Your task to perform on an android device: toggle priority inbox in the gmail app Image 0: 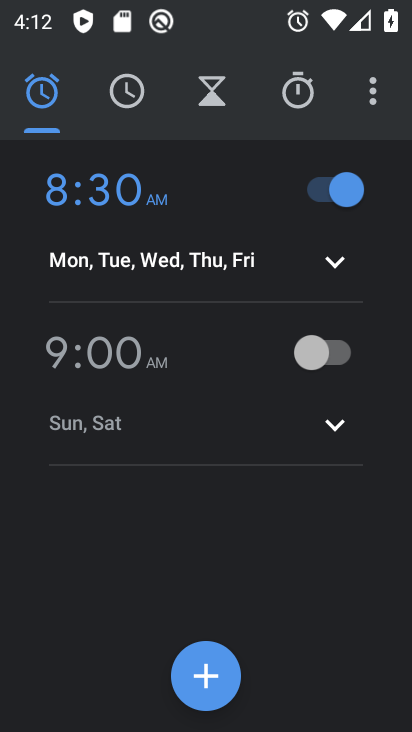
Step 0: press back button
Your task to perform on an android device: toggle priority inbox in the gmail app Image 1: 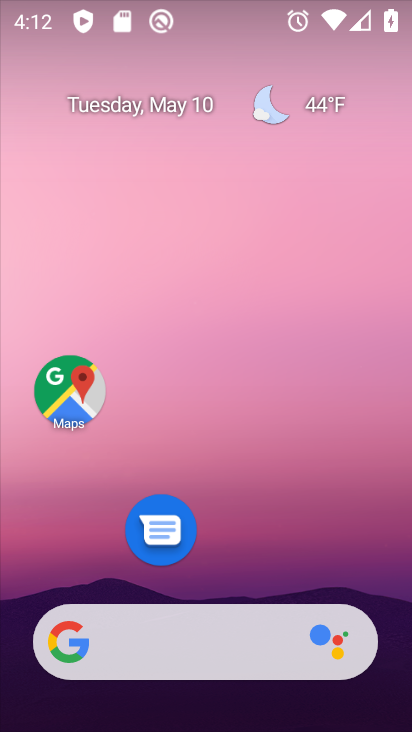
Step 1: drag from (231, 580) to (313, 77)
Your task to perform on an android device: toggle priority inbox in the gmail app Image 2: 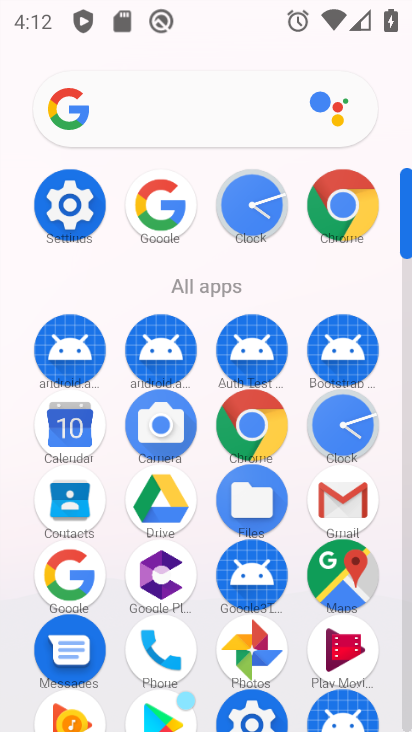
Step 2: click (351, 508)
Your task to perform on an android device: toggle priority inbox in the gmail app Image 3: 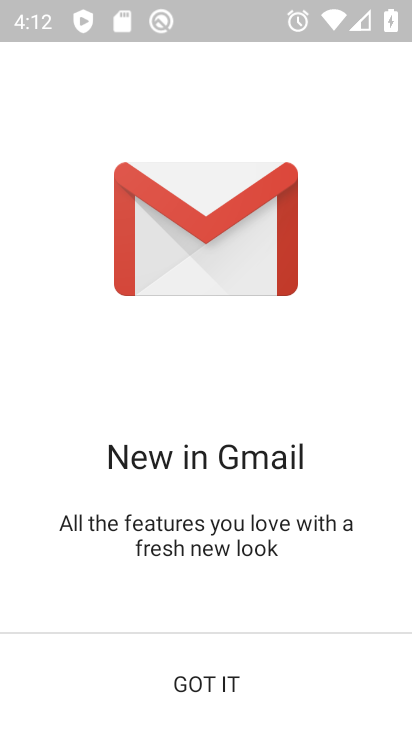
Step 3: click (190, 679)
Your task to perform on an android device: toggle priority inbox in the gmail app Image 4: 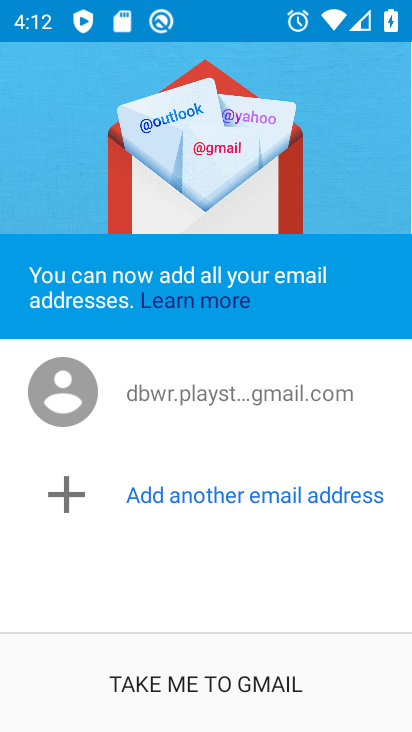
Step 4: click (202, 685)
Your task to perform on an android device: toggle priority inbox in the gmail app Image 5: 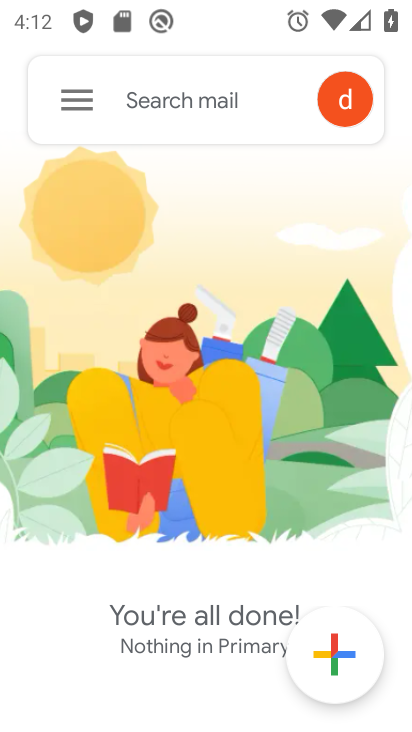
Step 5: click (71, 101)
Your task to perform on an android device: toggle priority inbox in the gmail app Image 6: 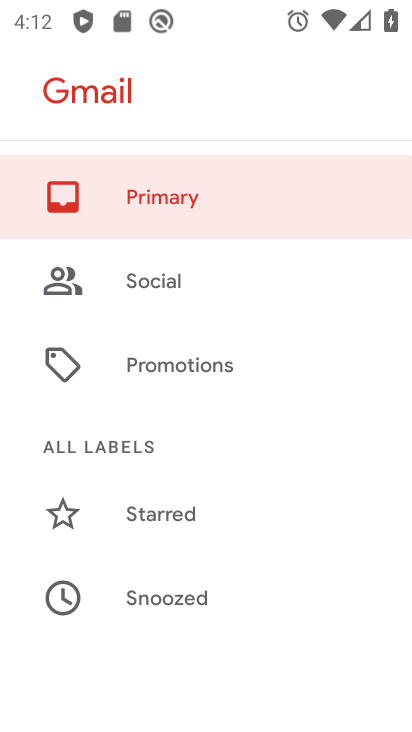
Step 6: drag from (179, 586) to (321, 57)
Your task to perform on an android device: toggle priority inbox in the gmail app Image 7: 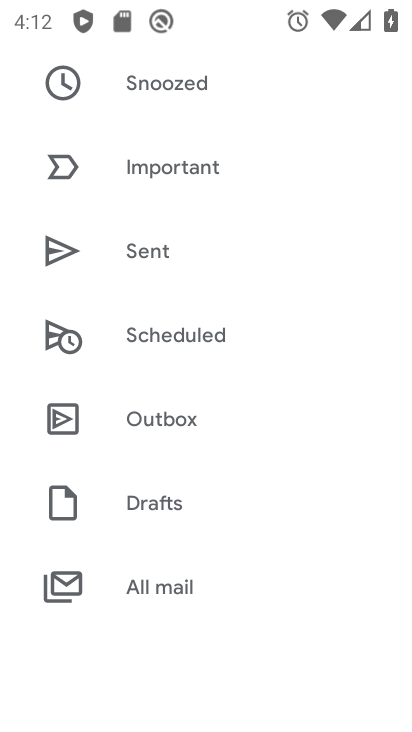
Step 7: drag from (179, 539) to (270, 70)
Your task to perform on an android device: toggle priority inbox in the gmail app Image 8: 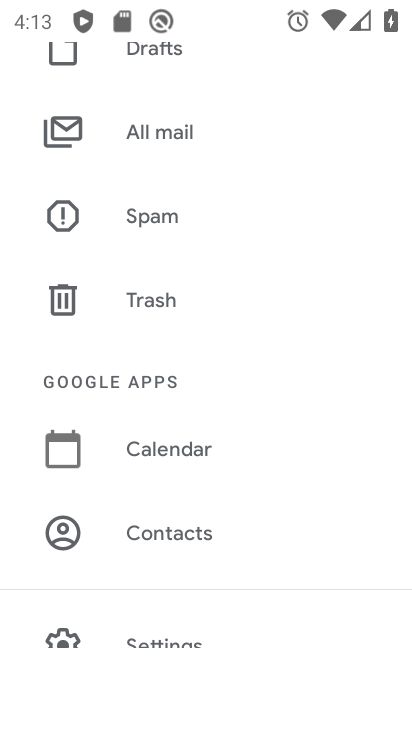
Step 8: drag from (155, 606) to (269, 194)
Your task to perform on an android device: toggle priority inbox in the gmail app Image 9: 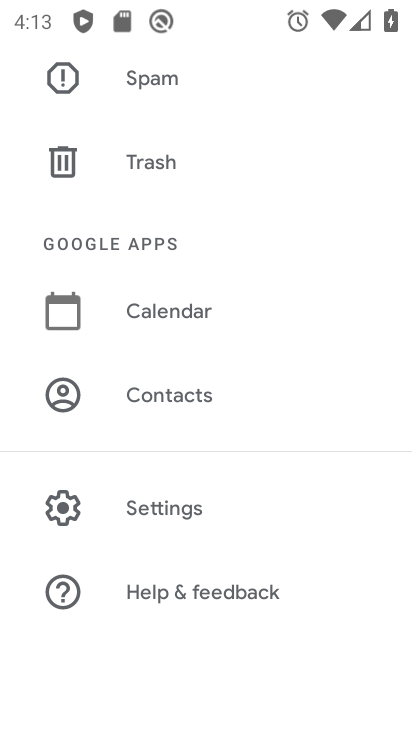
Step 9: click (167, 518)
Your task to perform on an android device: toggle priority inbox in the gmail app Image 10: 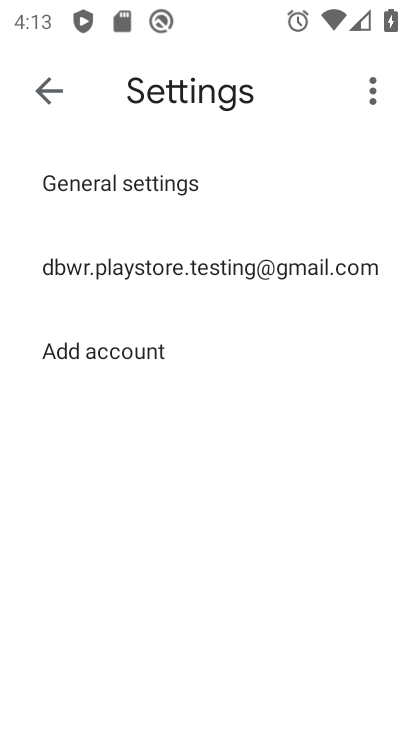
Step 10: click (186, 277)
Your task to perform on an android device: toggle priority inbox in the gmail app Image 11: 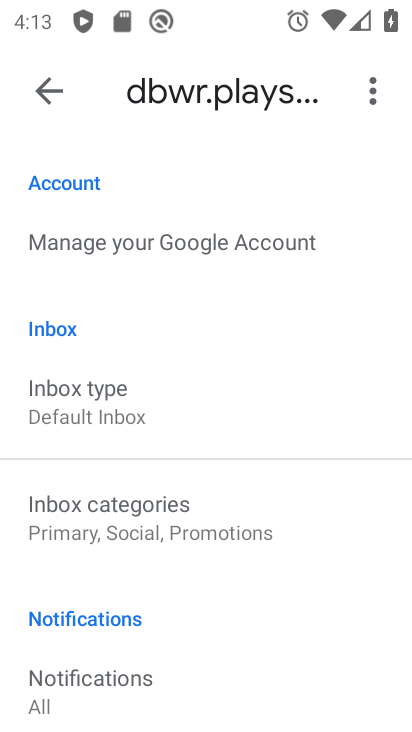
Step 11: click (102, 418)
Your task to perform on an android device: toggle priority inbox in the gmail app Image 12: 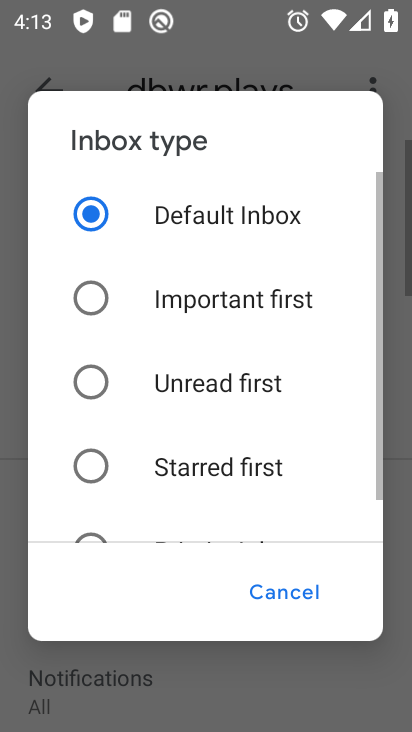
Step 12: drag from (142, 540) to (257, 104)
Your task to perform on an android device: toggle priority inbox in the gmail app Image 13: 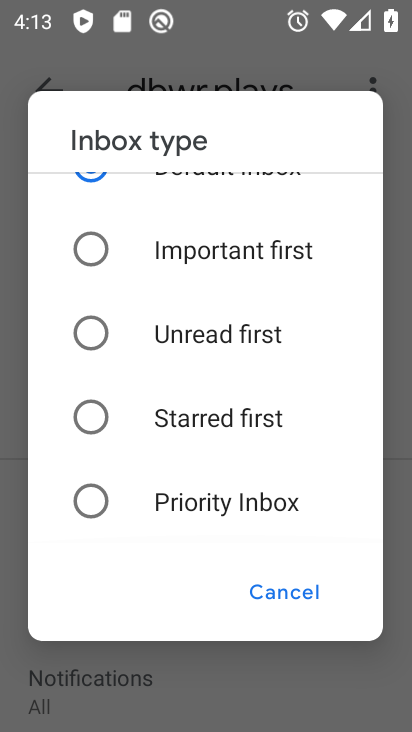
Step 13: click (85, 503)
Your task to perform on an android device: toggle priority inbox in the gmail app Image 14: 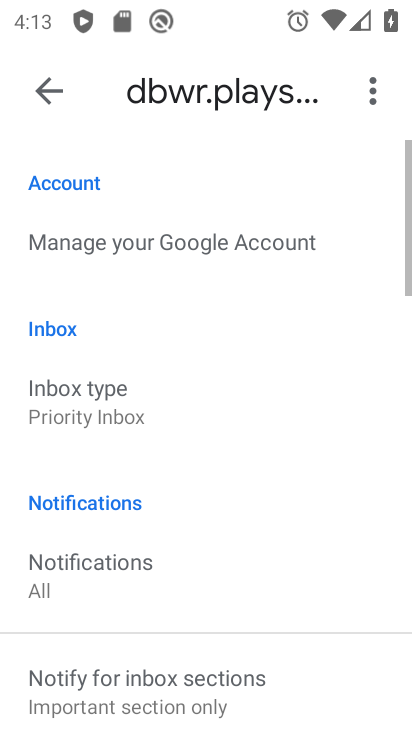
Step 14: task complete